Your task to perform on an android device: Open the map Image 0: 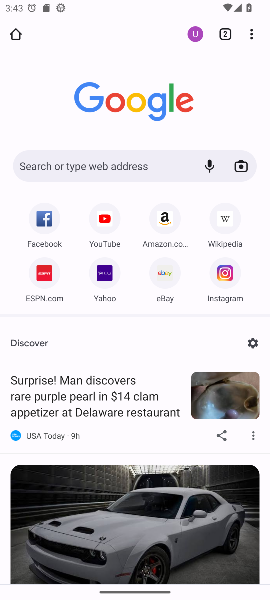
Step 0: press home button
Your task to perform on an android device: Open the map Image 1: 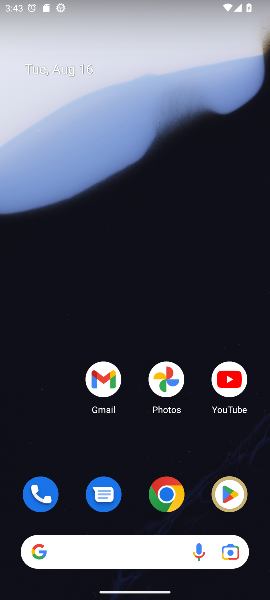
Step 1: drag from (164, 533) to (136, 126)
Your task to perform on an android device: Open the map Image 2: 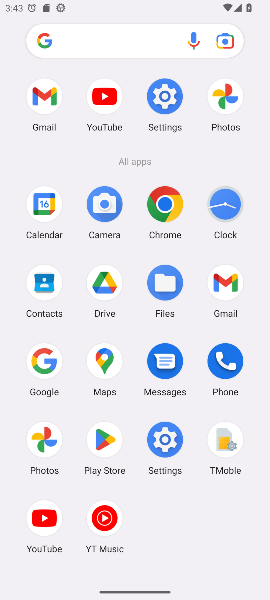
Step 2: click (101, 354)
Your task to perform on an android device: Open the map Image 3: 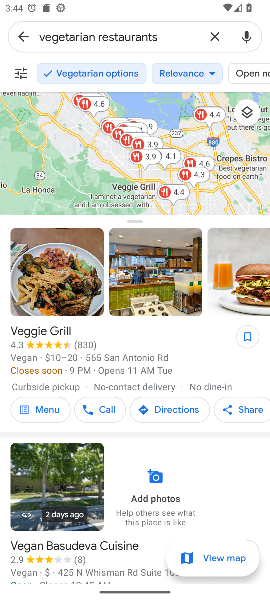
Step 3: task complete